Your task to perform on an android device: Show me the alarms in the clock app Image 0: 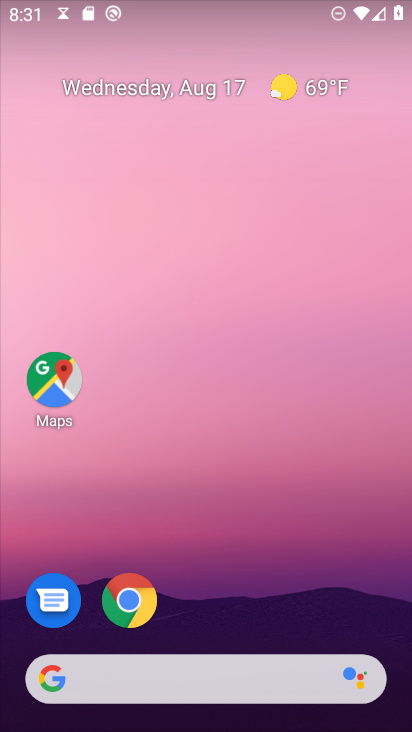
Step 0: press home button
Your task to perform on an android device: Show me the alarms in the clock app Image 1: 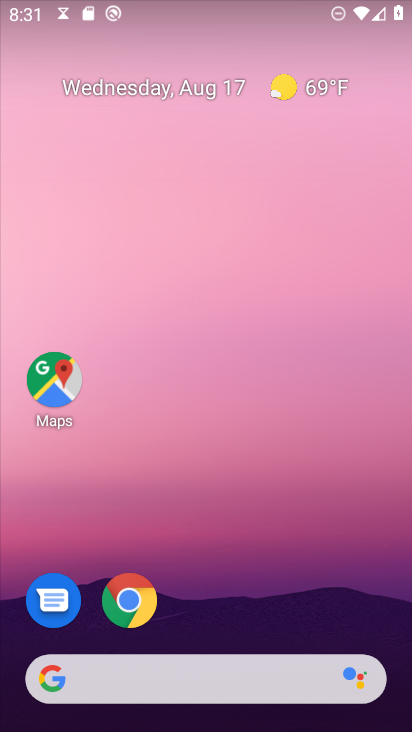
Step 1: drag from (265, 592) to (184, 49)
Your task to perform on an android device: Show me the alarms in the clock app Image 2: 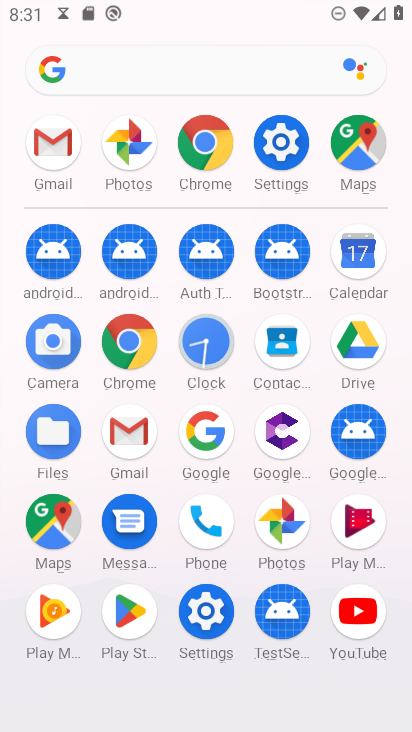
Step 2: click (208, 334)
Your task to perform on an android device: Show me the alarms in the clock app Image 3: 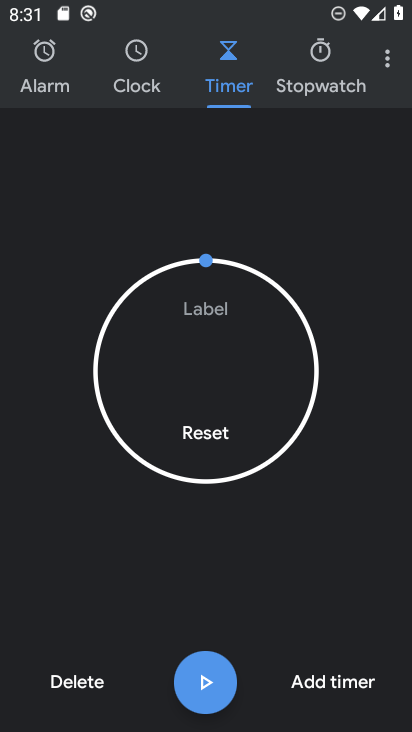
Step 3: click (47, 72)
Your task to perform on an android device: Show me the alarms in the clock app Image 4: 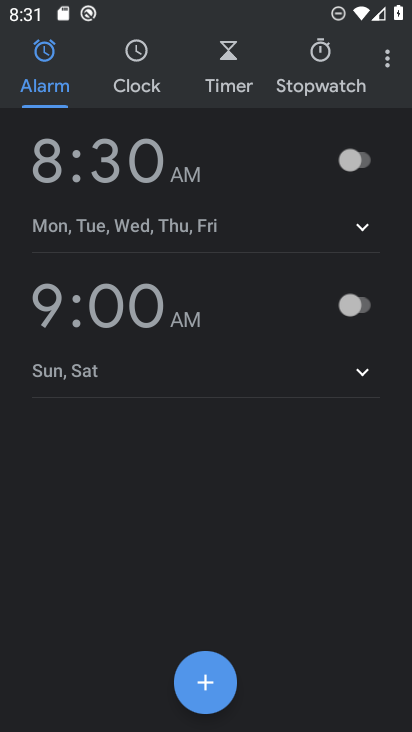
Step 4: click (357, 164)
Your task to perform on an android device: Show me the alarms in the clock app Image 5: 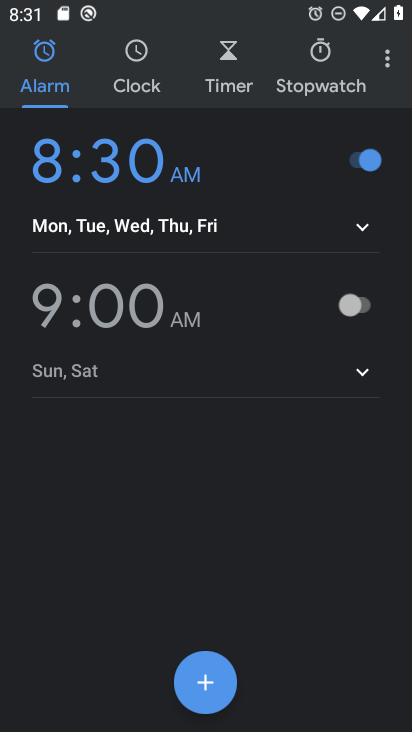
Step 5: task complete